Your task to perform on an android device: Go to display settings Image 0: 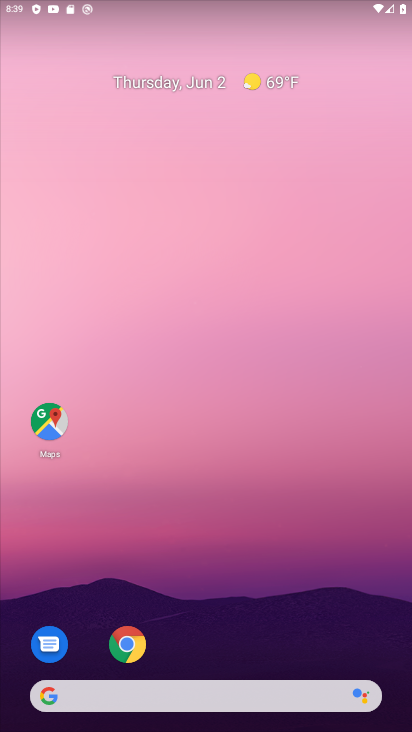
Step 0: drag from (234, 586) to (173, 16)
Your task to perform on an android device: Go to display settings Image 1: 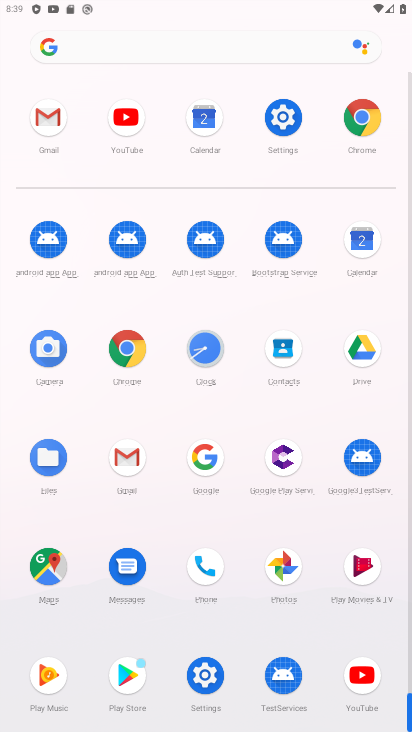
Step 1: click (206, 673)
Your task to perform on an android device: Go to display settings Image 2: 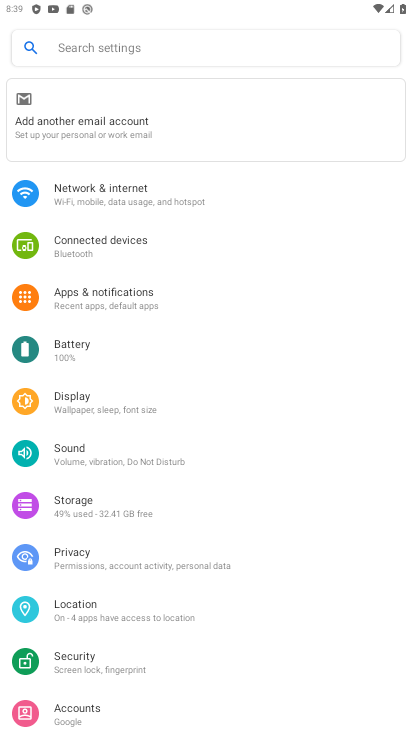
Step 2: click (123, 404)
Your task to perform on an android device: Go to display settings Image 3: 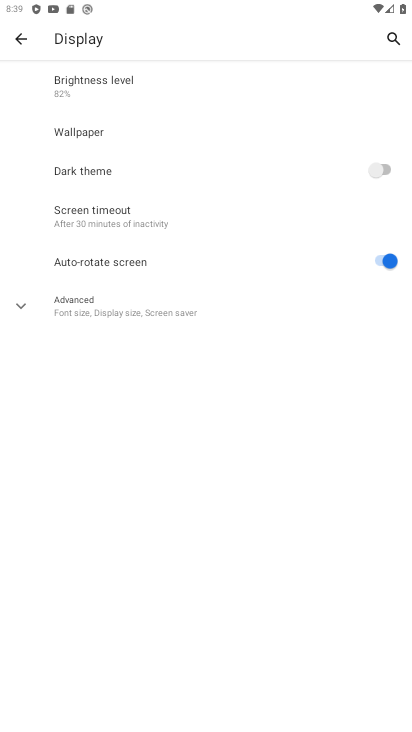
Step 3: click (15, 303)
Your task to perform on an android device: Go to display settings Image 4: 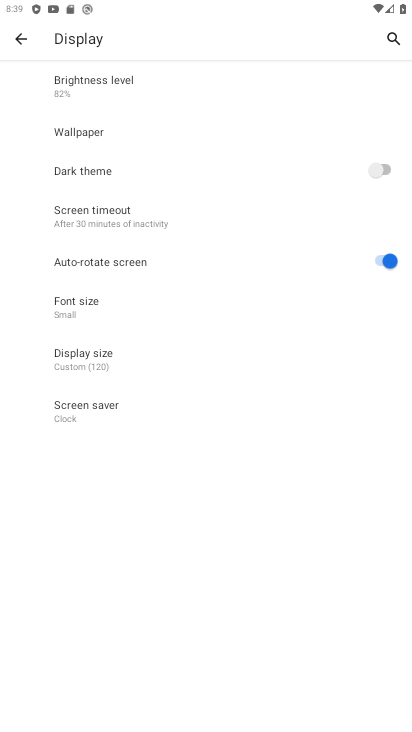
Step 4: task complete